Your task to perform on an android device: Open Wikipedia Image 0: 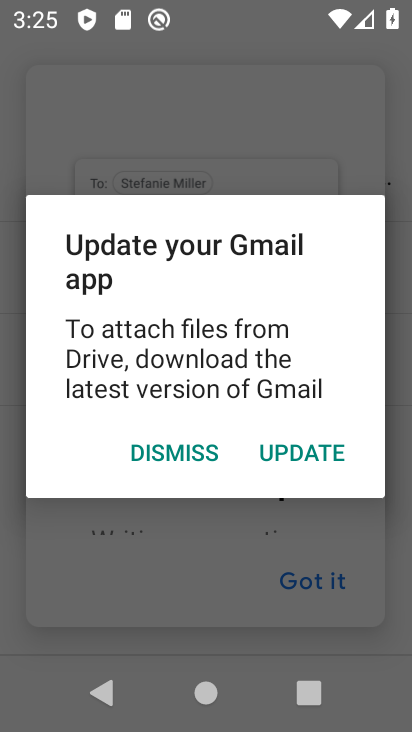
Step 0: click (191, 446)
Your task to perform on an android device: Open Wikipedia Image 1: 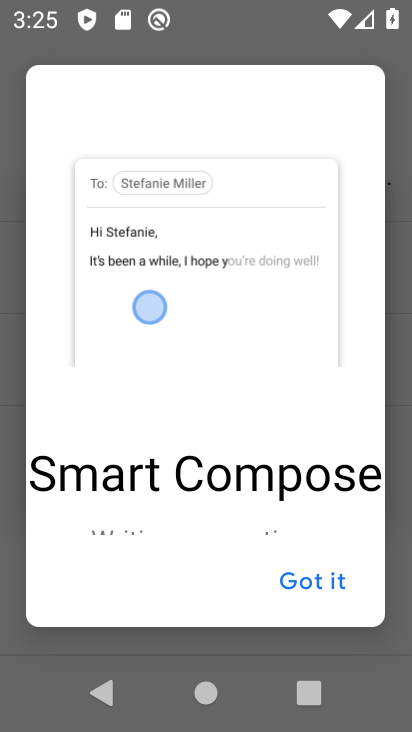
Step 1: press home button
Your task to perform on an android device: Open Wikipedia Image 2: 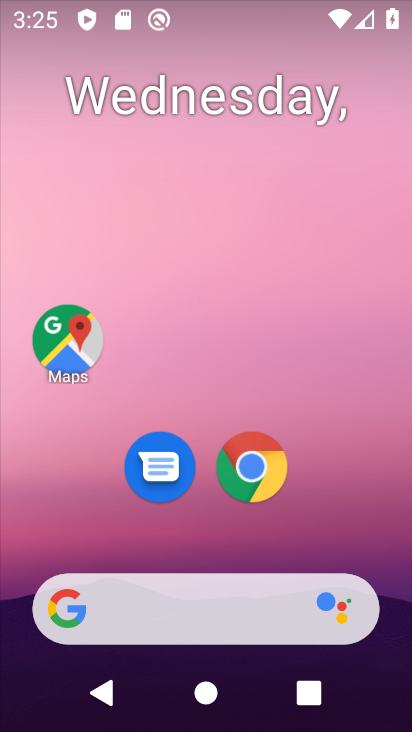
Step 2: click (232, 471)
Your task to perform on an android device: Open Wikipedia Image 3: 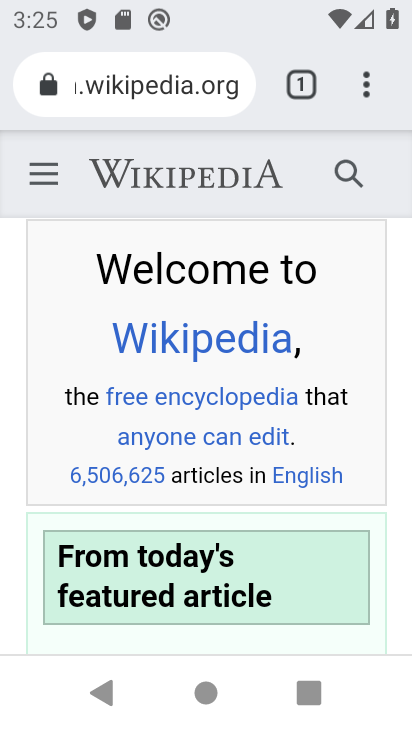
Step 3: task complete